Your task to perform on an android device: manage bookmarks in the chrome app Image 0: 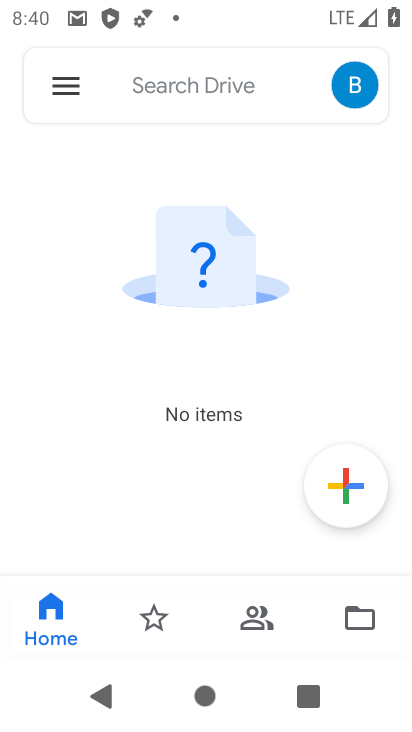
Step 0: press back button
Your task to perform on an android device: manage bookmarks in the chrome app Image 1: 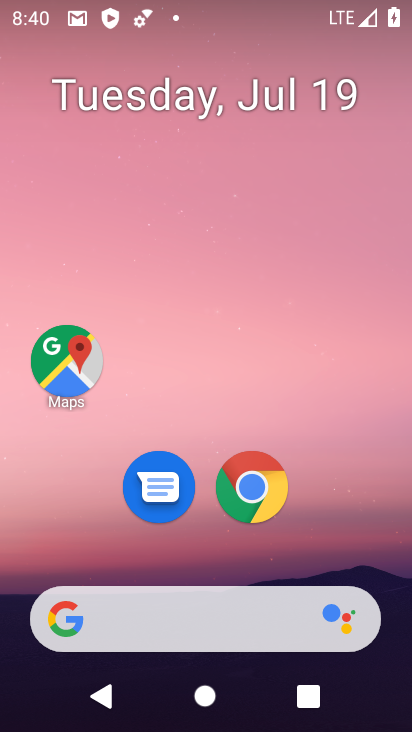
Step 1: click (267, 475)
Your task to perform on an android device: manage bookmarks in the chrome app Image 2: 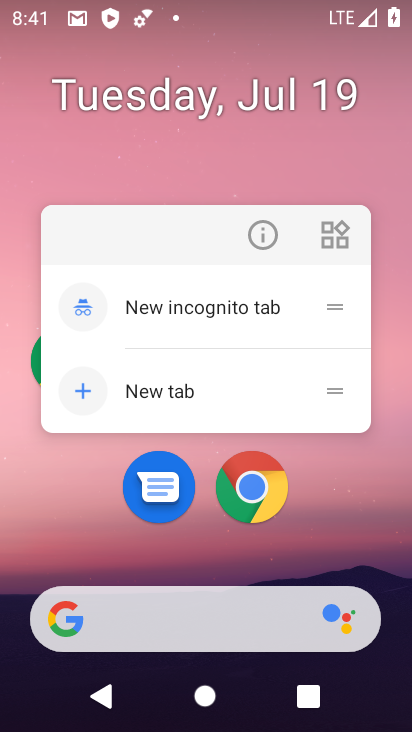
Step 2: click (259, 494)
Your task to perform on an android device: manage bookmarks in the chrome app Image 3: 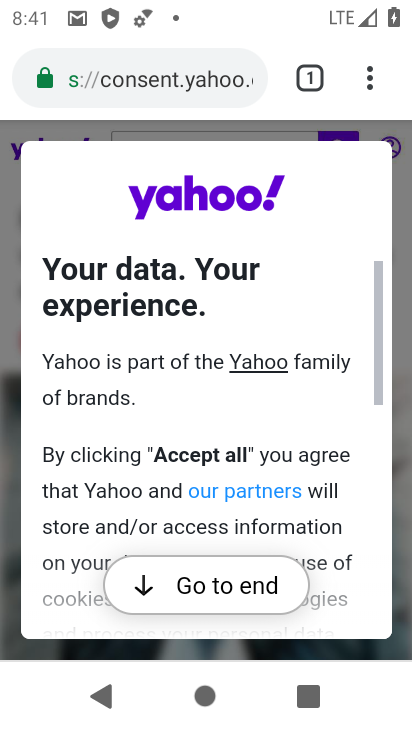
Step 3: drag from (370, 73) to (118, 293)
Your task to perform on an android device: manage bookmarks in the chrome app Image 4: 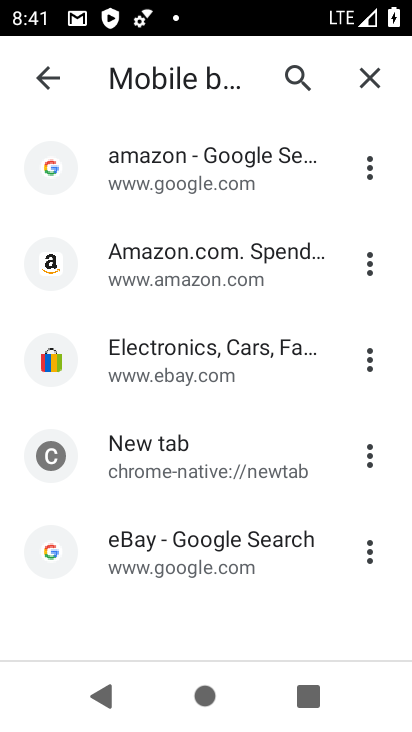
Step 4: click (373, 159)
Your task to perform on an android device: manage bookmarks in the chrome app Image 5: 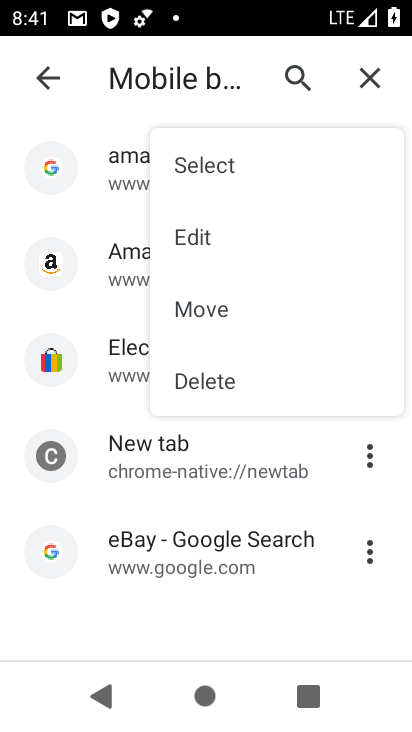
Step 5: click (202, 380)
Your task to perform on an android device: manage bookmarks in the chrome app Image 6: 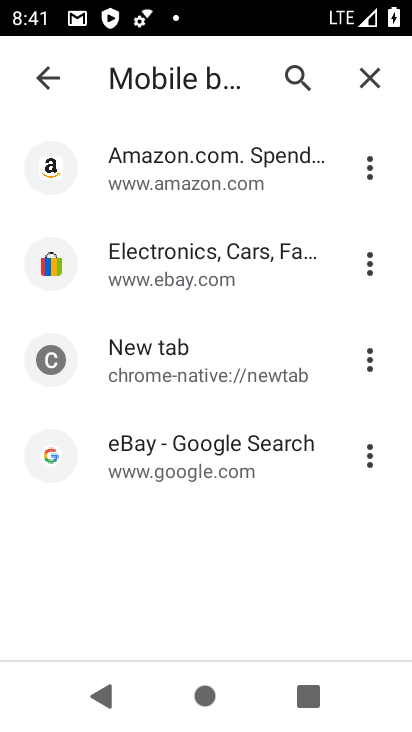
Step 6: task complete